Your task to perform on an android device: What's the weather? Image 0: 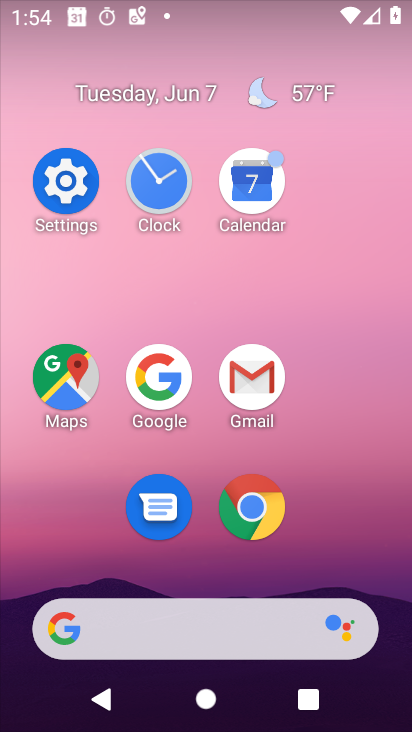
Step 0: click (176, 362)
Your task to perform on an android device: What's the weather? Image 1: 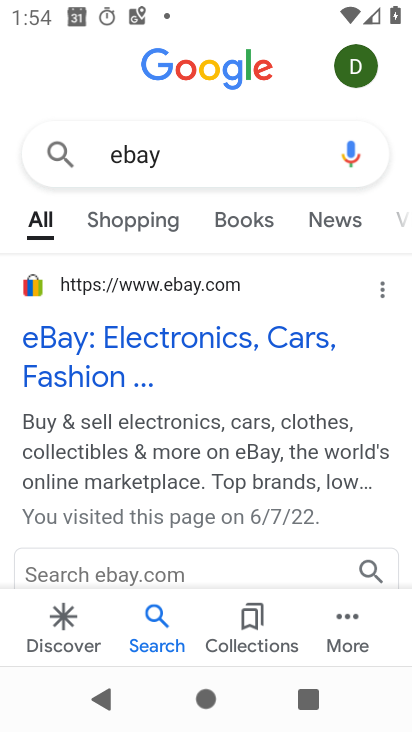
Step 1: click (251, 160)
Your task to perform on an android device: What's the weather? Image 2: 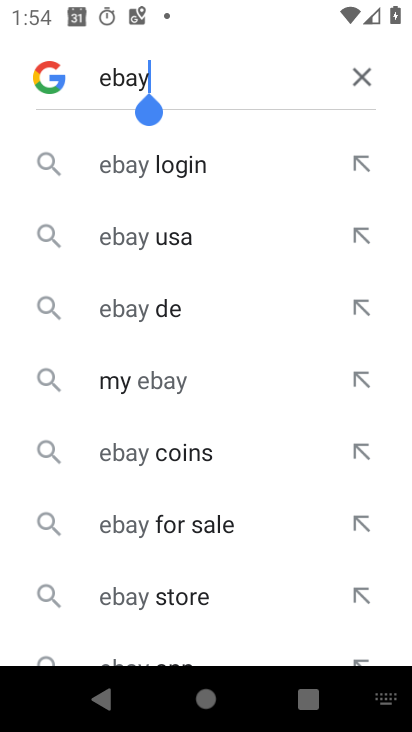
Step 2: click (368, 75)
Your task to perform on an android device: What's the weather? Image 3: 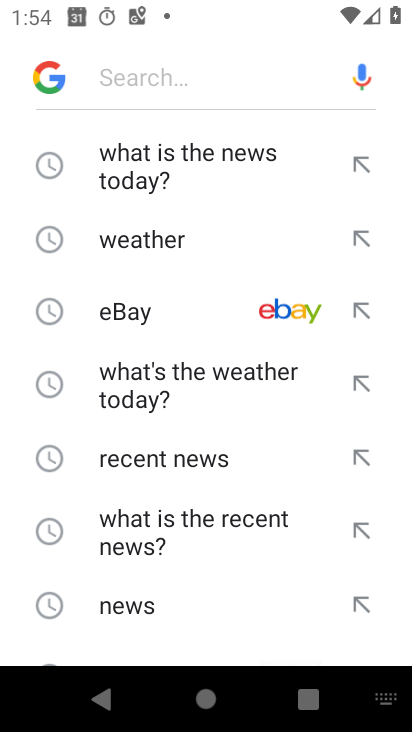
Step 3: click (202, 251)
Your task to perform on an android device: What's the weather? Image 4: 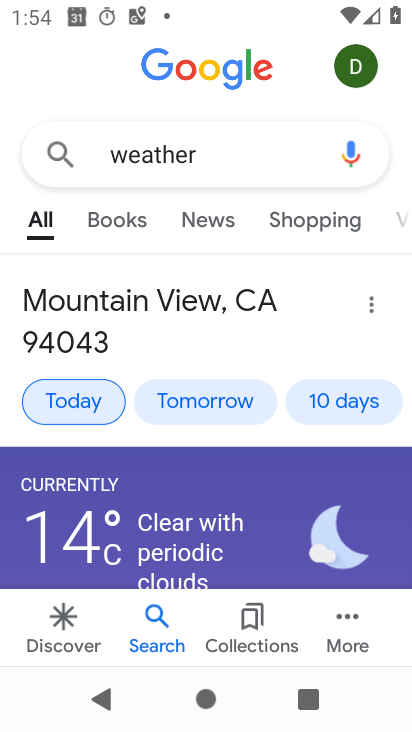
Step 4: task complete